Your task to perform on an android device: Search for Mexican restaurants on Maps Image 0: 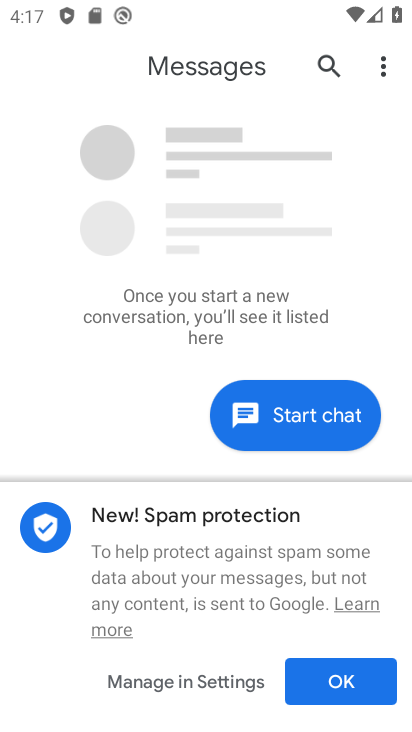
Step 0: press home button
Your task to perform on an android device: Search for Mexican restaurants on Maps Image 1: 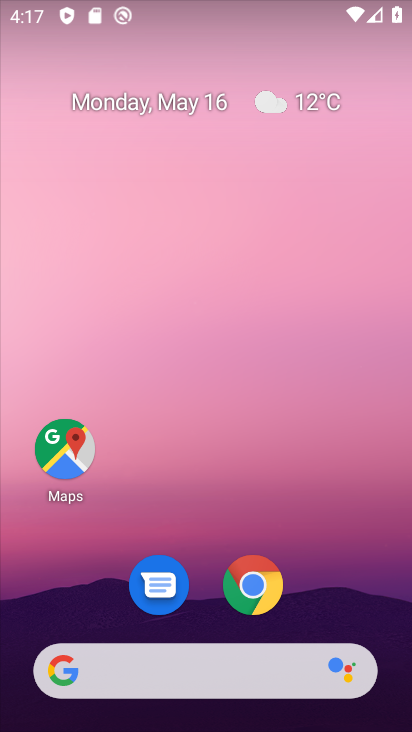
Step 1: click (60, 457)
Your task to perform on an android device: Search for Mexican restaurants on Maps Image 2: 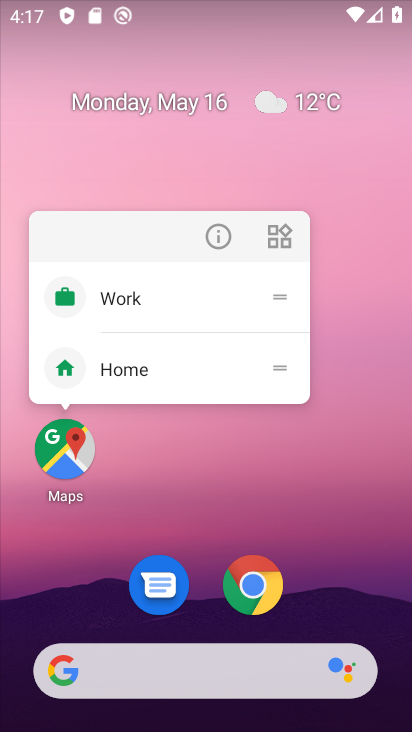
Step 2: click (60, 457)
Your task to perform on an android device: Search for Mexican restaurants on Maps Image 3: 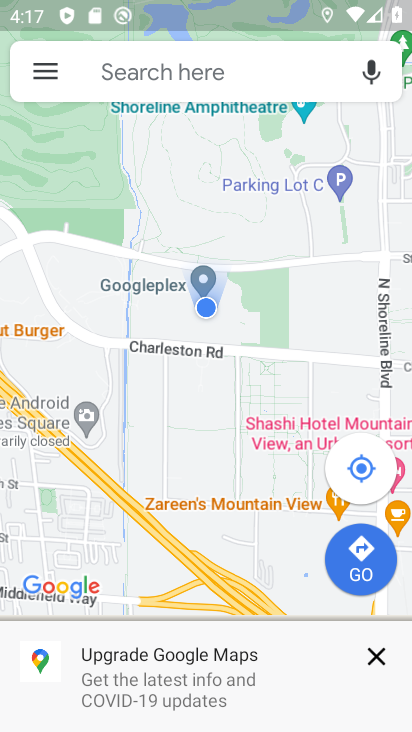
Step 3: click (241, 70)
Your task to perform on an android device: Search for Mexican restaurants on Maps Image 4: 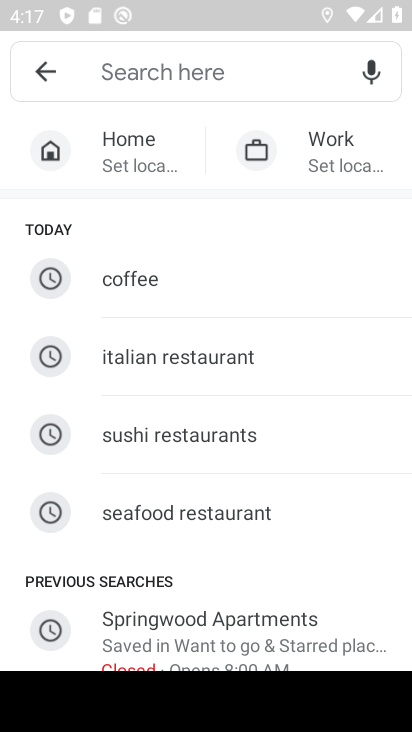
Step 4: type "maxican restaurants"
Your task to perform on an android device: Search for Mexican restaurants on Maps Image 5: 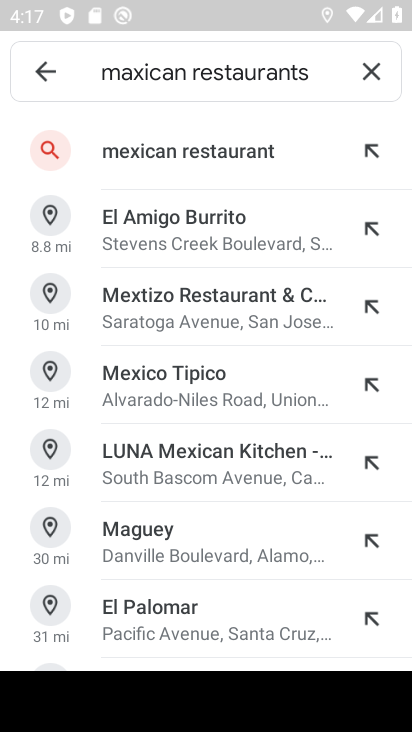
Step 5: click (226, 148)
Your task to perform on an android device: Search for Mexican restaurants on Maps Image 6: 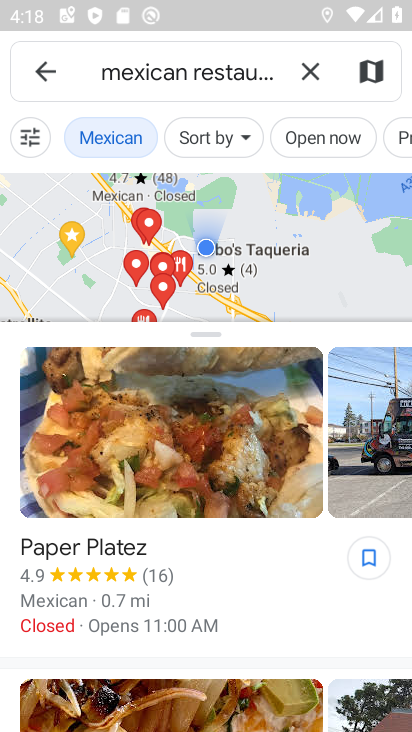
Step 6: task complete